Your task to perform on an android device: move an email to a new category in the gmail app Image 0: 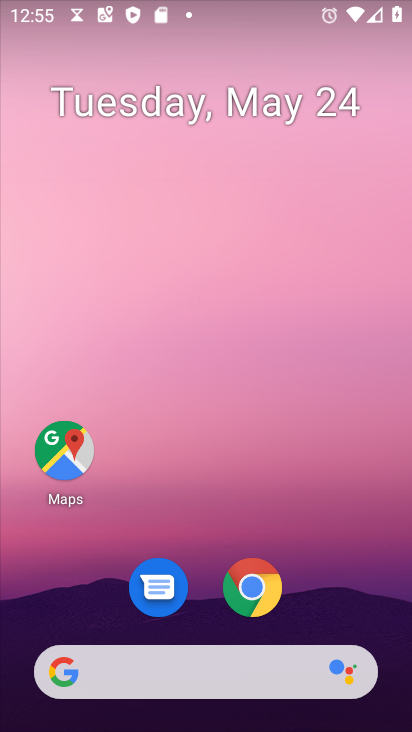
Step 0: drag from (222, 667) to (179, 145)
Your task to perform on an android device: move an email to a new category in the gmail app Image 1: 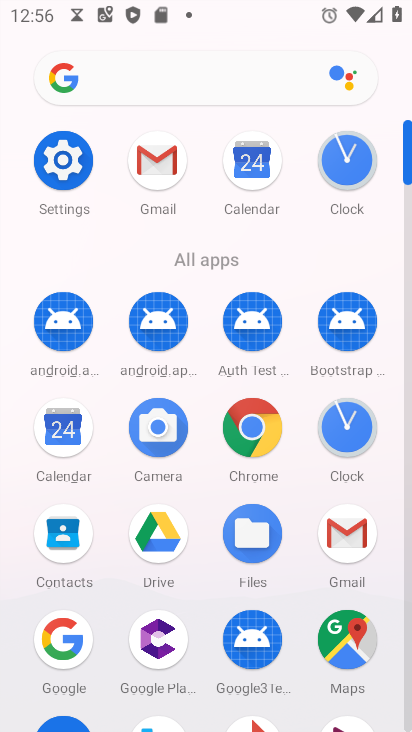
Step 1: click (347, 524)
Your task to perform on an android device: move an email to a new category in the gmail app Image 2: 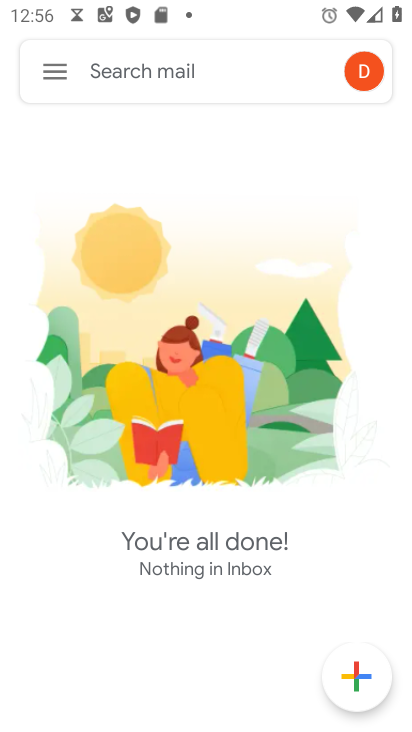
Step 2: click (65, 75)
Your task to perform on an android device: move an email to a new category in the gmail app Image 3: 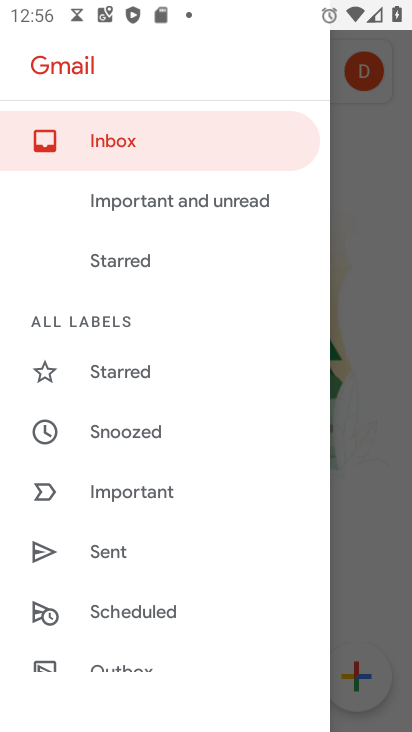
Step 3: drag from (163, 542) to (161, 127)
Your task to perform on an android device: move an email to a new category in the gmail app Image 4: 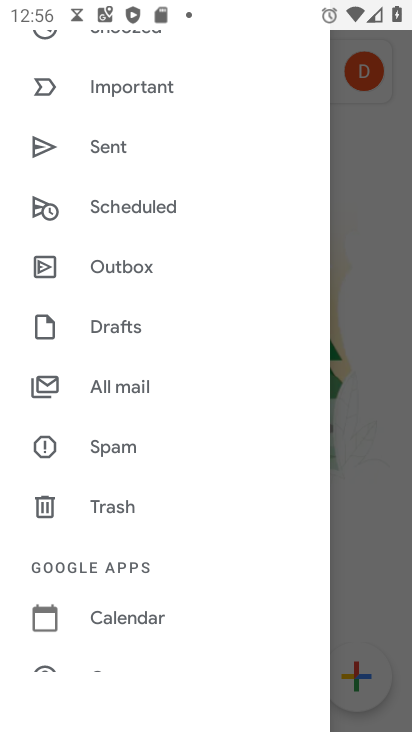
Step 4: click (122, 375)
Your task to perform on an android device: move an email to a new category in the gmail app Image 5: 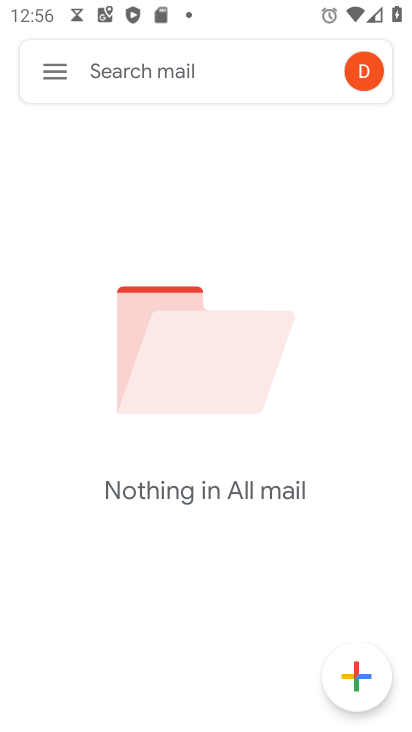
Step 5: task complete